Your task to perform on an android device: install app "Walmart Shopping & Grocery" Image 0: 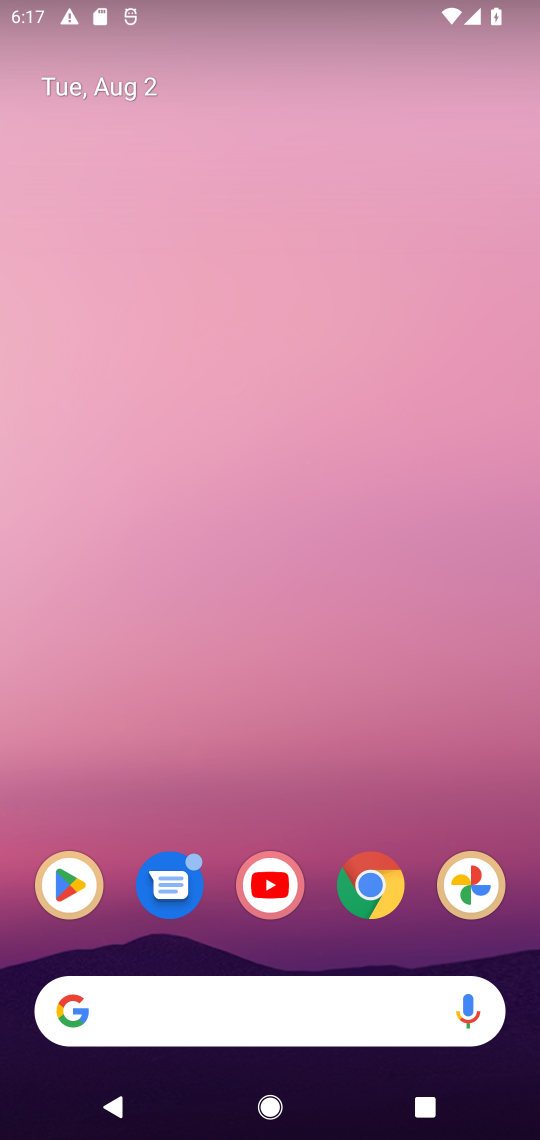
Step 0: drag from (426, 799) to (378, 82)
Your task to perform on an android device: install app "Walmart Shopping & Grocery" Image 1: 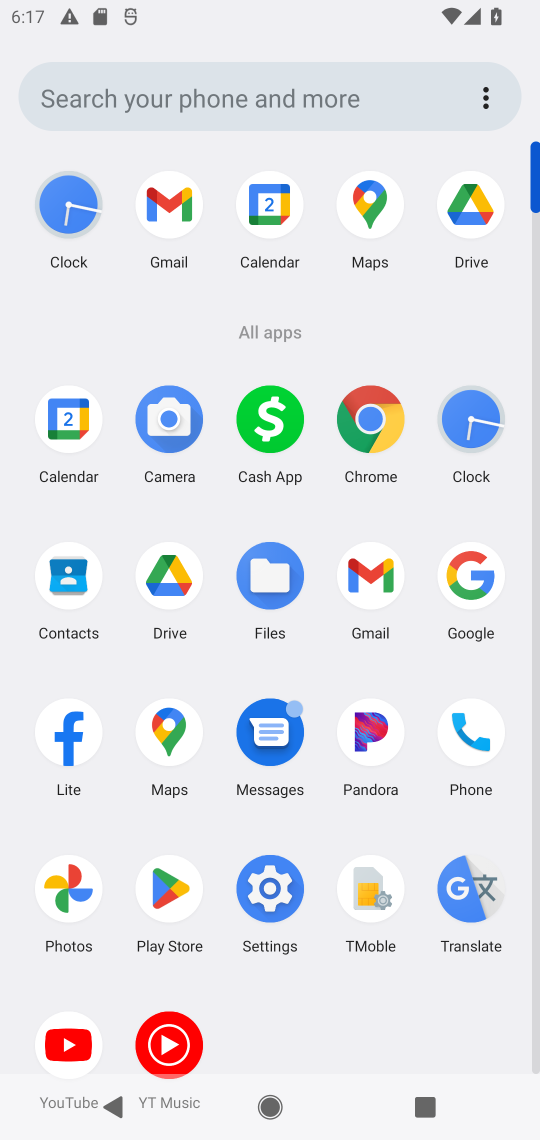
Step 1: click (173, 903)
Your task to perform on an android device: install app "Walmart Shopping & Grocery" Image 2: 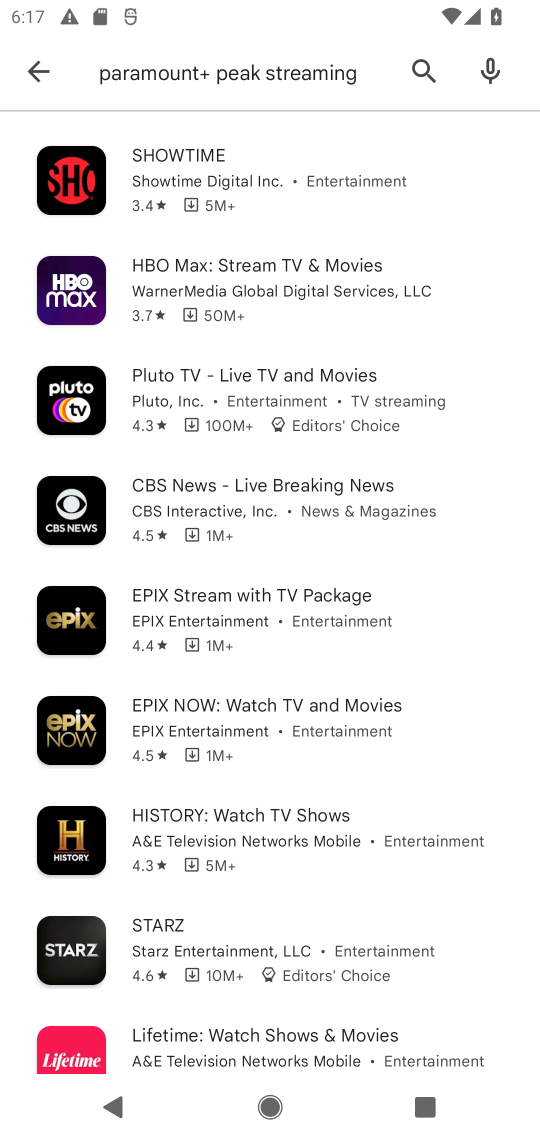
Step 2: click (426, 80)
Your task to perform on an android device: install app "Walmart Shopping & Grocery" Image 3: 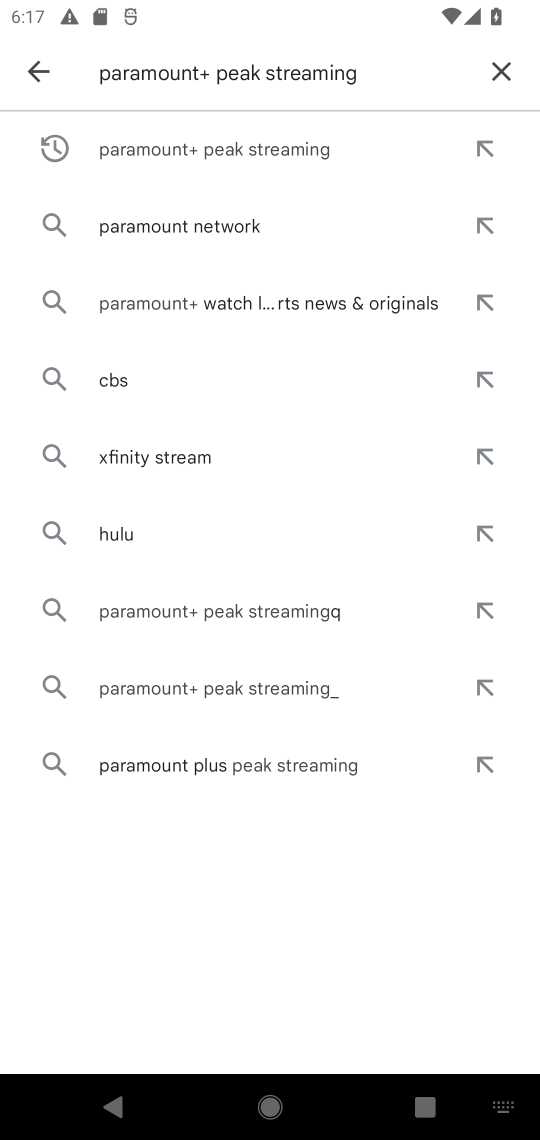
Step 3: click (509, 67)
Your task to perform on an android device: install app "Walmart Shopping & Grocery" Image 4: 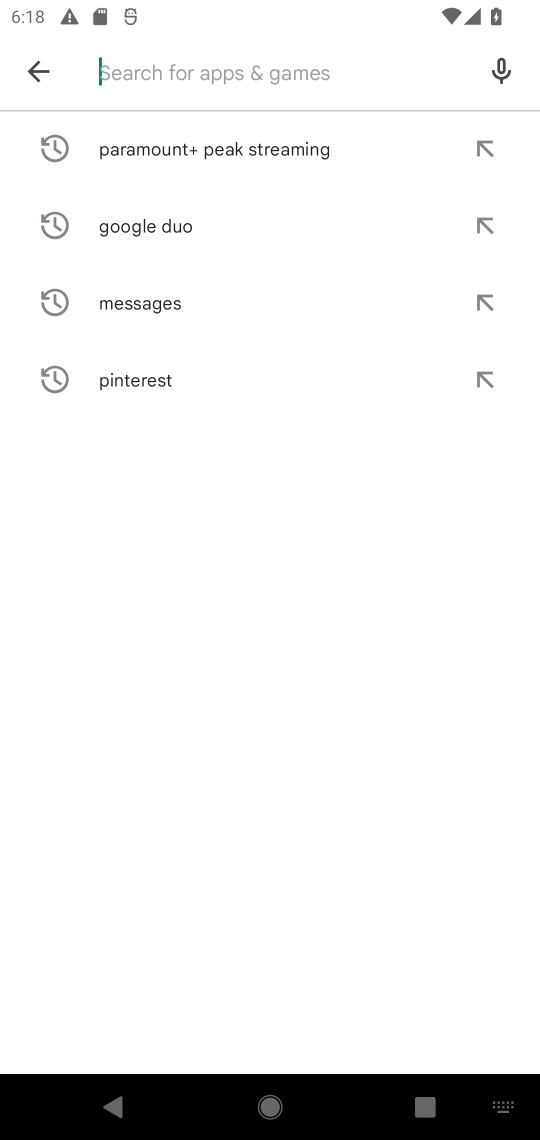
Step 4: type "Walmart Shopping & Grocery"
Your task to perform on an android device: install app "Walmart Shopping & Grocery" Image 5: 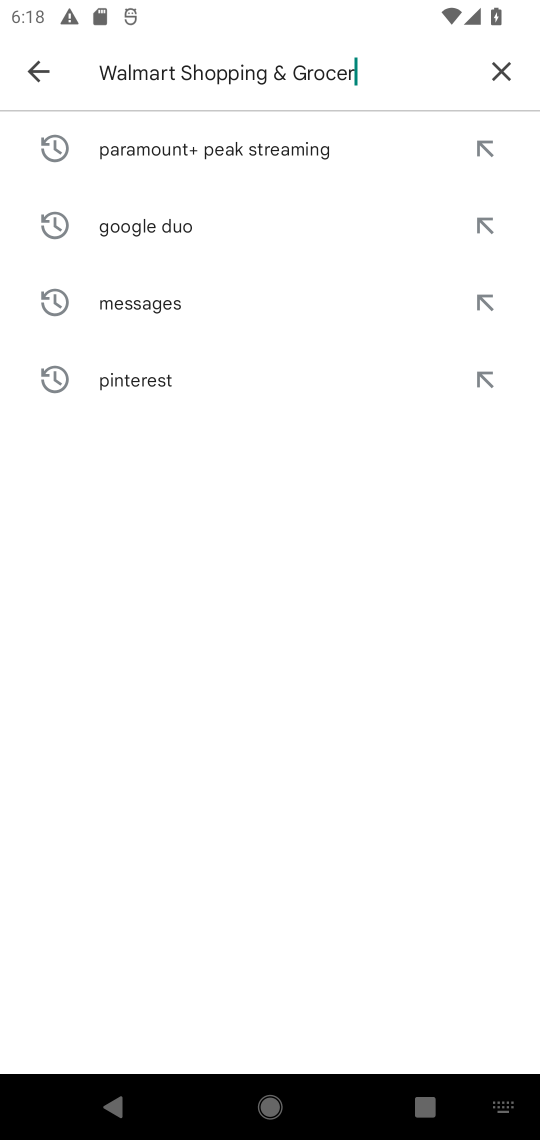
Step 5: press enter
Your task to perform on an android device: install app "Walmart Shopping & Grocery" Image 6: 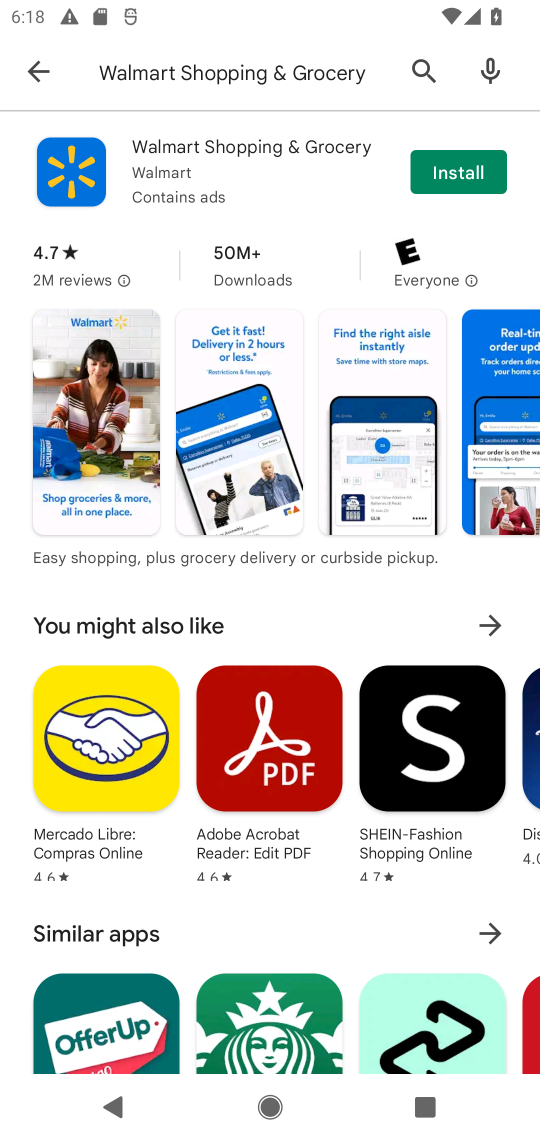
Step 6: click (463, 174)
Your task to perform on an android device: install app "Walmart Shopping & Grocery" Image 7: 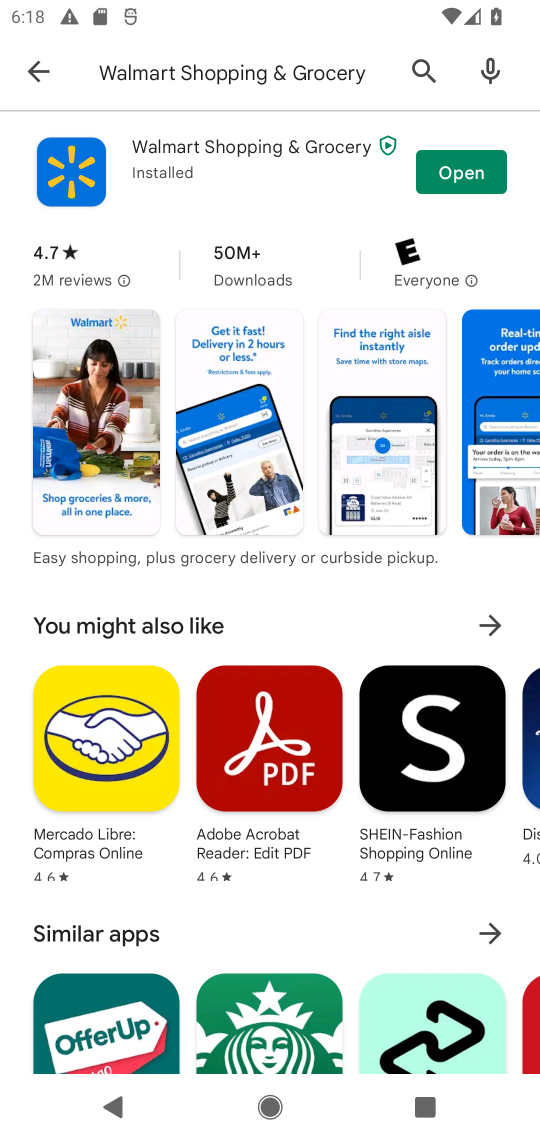
Step 7: task complete